Your task to perform on an android device: open app "Cash App" Image 0: 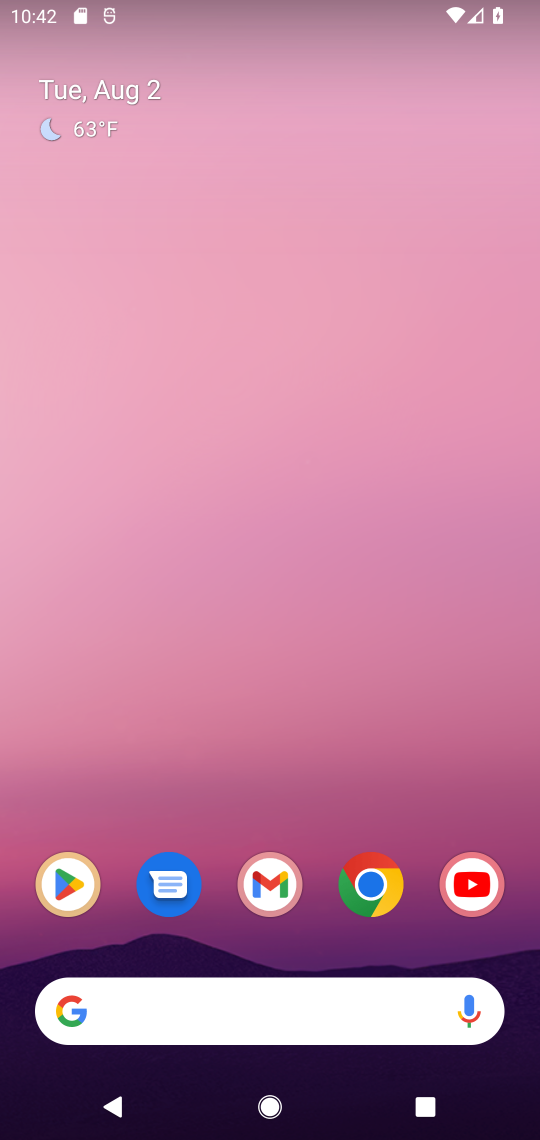
Step 0: click (75, 891)
Your task to perform on an android device: open app "Cash App" Image 1: 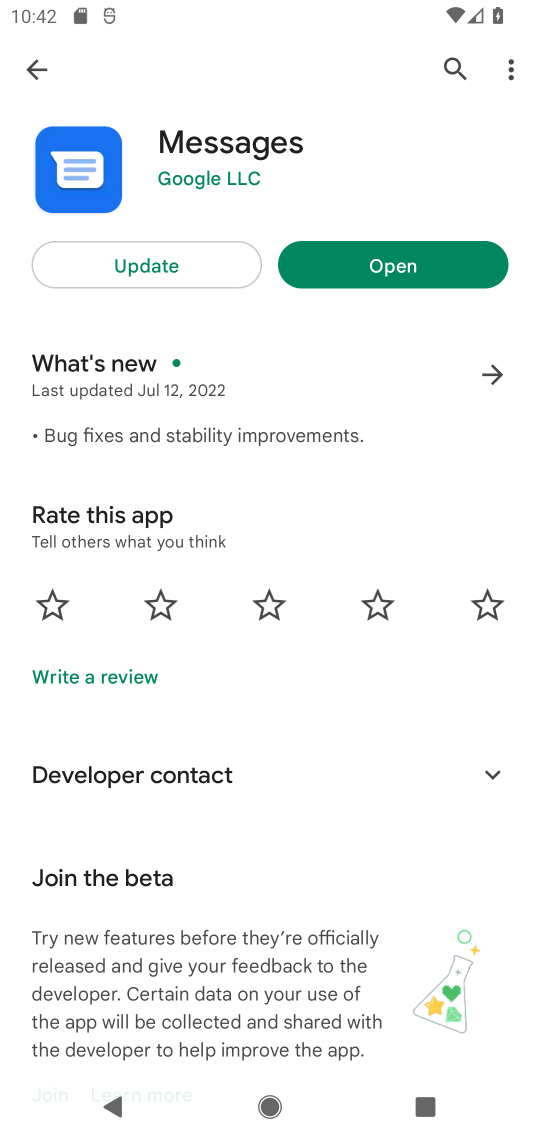
Step 1: click (45, 64)
Your task to perform on an android device: open app "Cash App" Image 2: 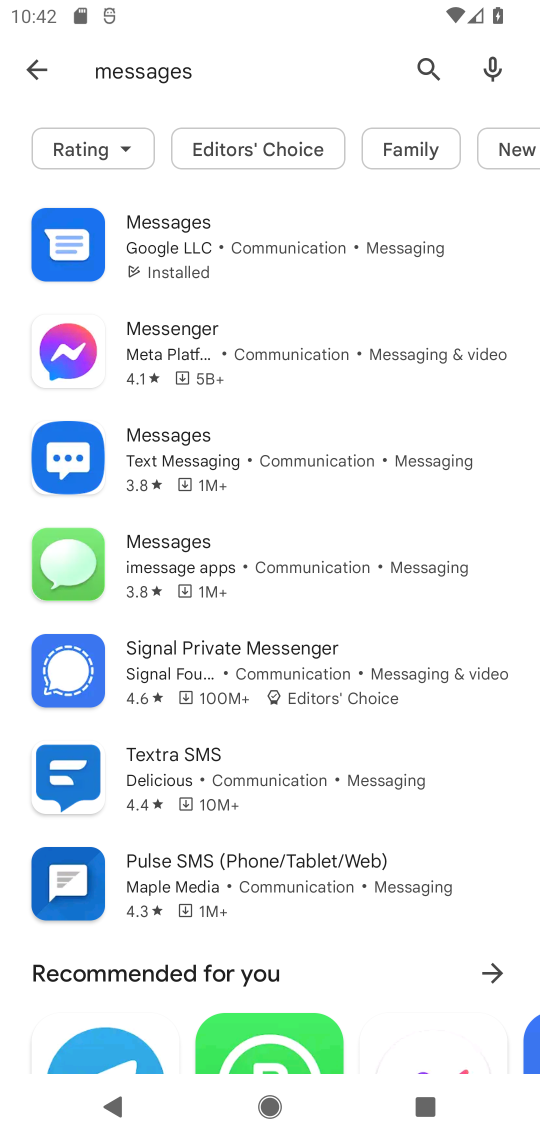
Step 2: click (136, 66)
Your task to perform on an android device: open app "Cash App" Image 3: 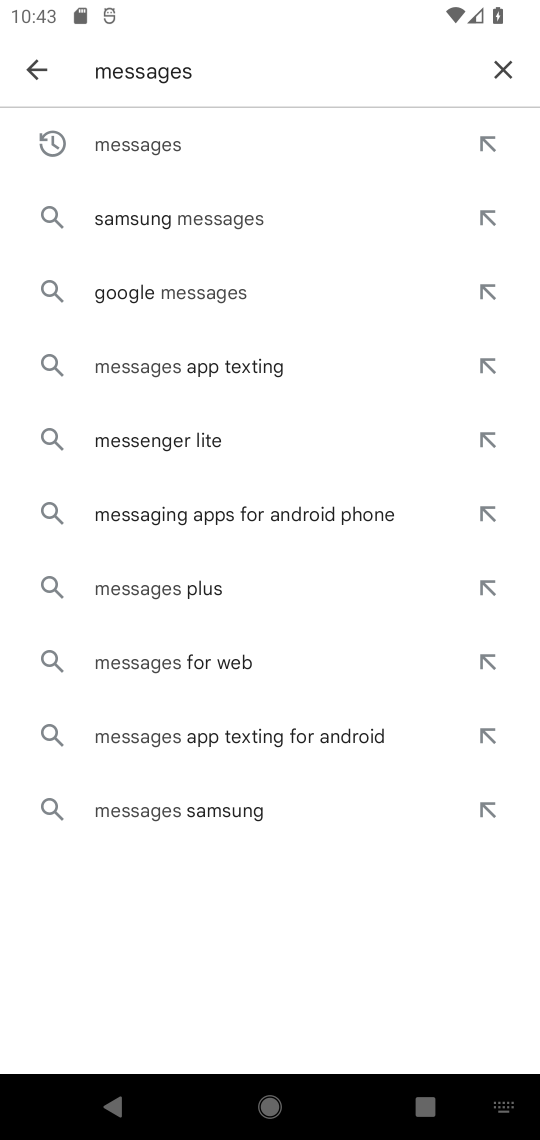
Step 3: click (496, 57)
Your task to perform on an android device: open app "Cash App" Image 4: 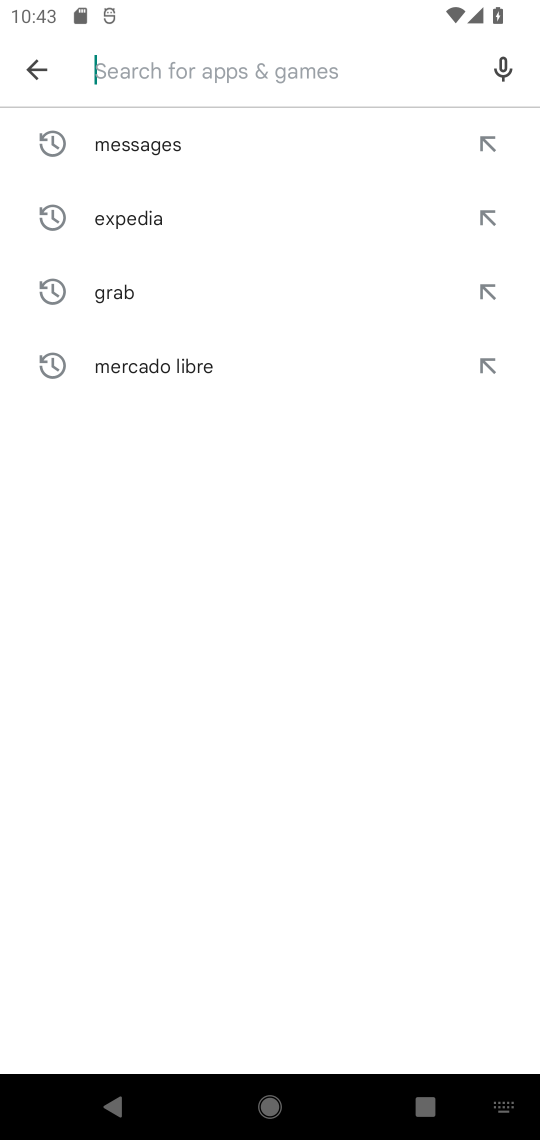
Step 4: type "Cash App"
Your task to perform on an android device: open app "Cash App" Image 5: 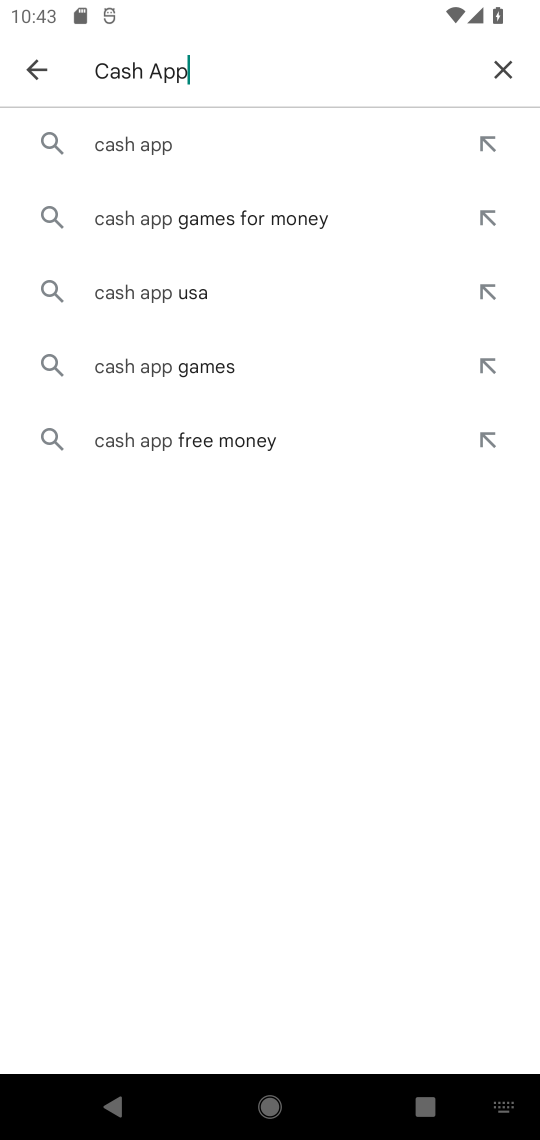
Step 5: click (139, 130)
Your task to perform on an android device: open app "Cash App" Image 6: 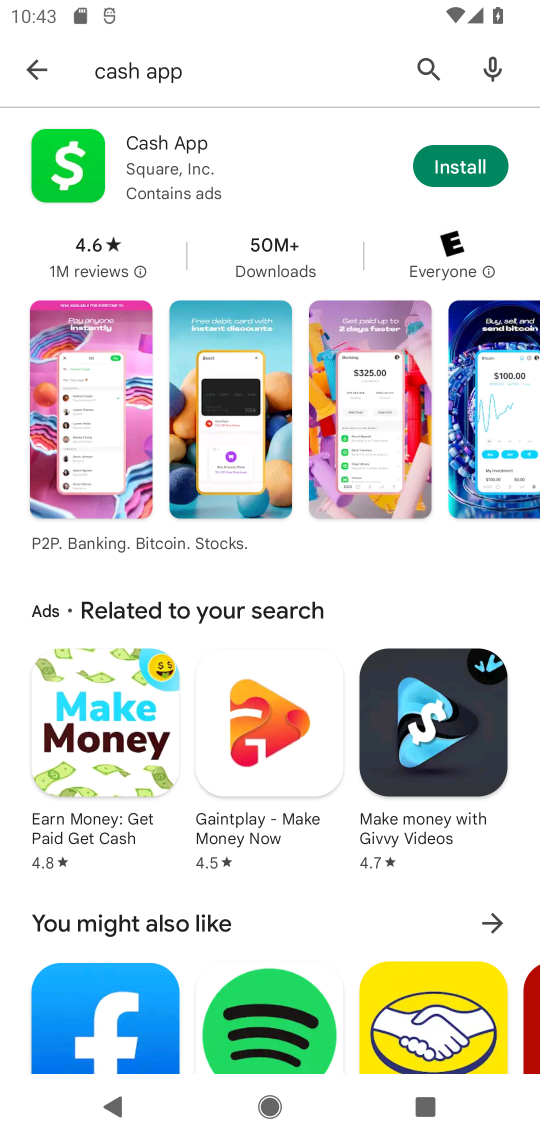
Step 6: task complete